Your task to perform on an android device: What's on my calendar tomorrow? Image 0: 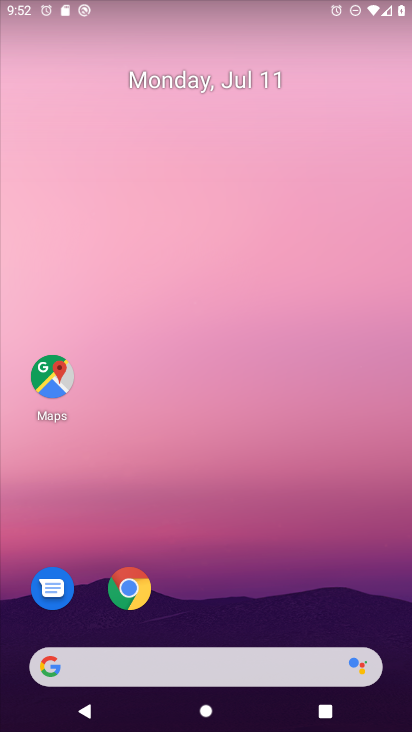
Step 0: drag from (239, 659) to (371, 47)
Your task to perform on an android device: What's on my calendar tomorrow? Image 1: 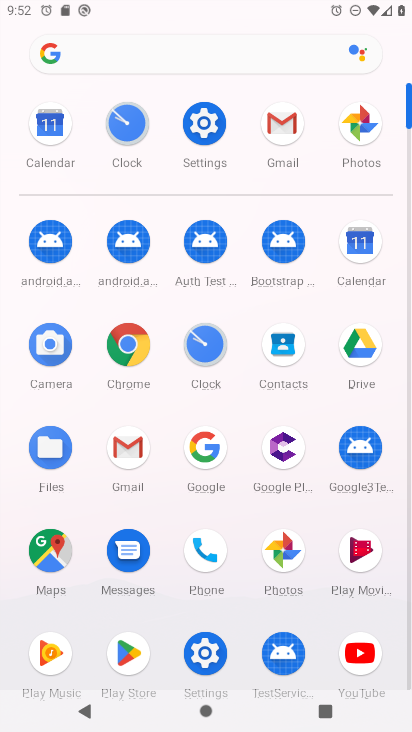
Step 1: click (352, 252)
Your task to perform on an android device: What's on my calendar tomorrow? Image 2: 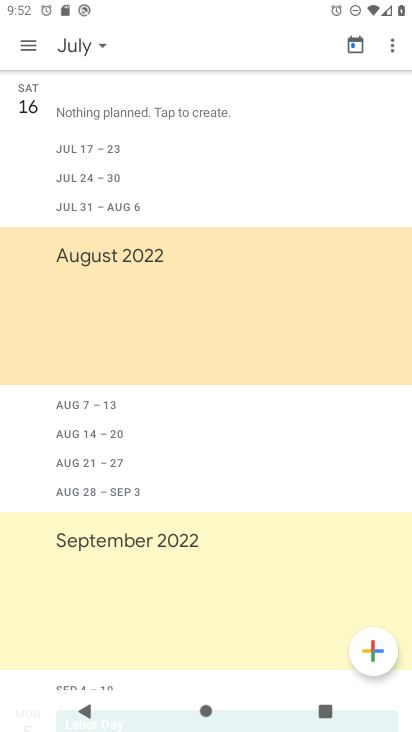
Step 2: click (79, 48)
Your task to perform on an android device: What's on my calendar tomorrow? Image 3: 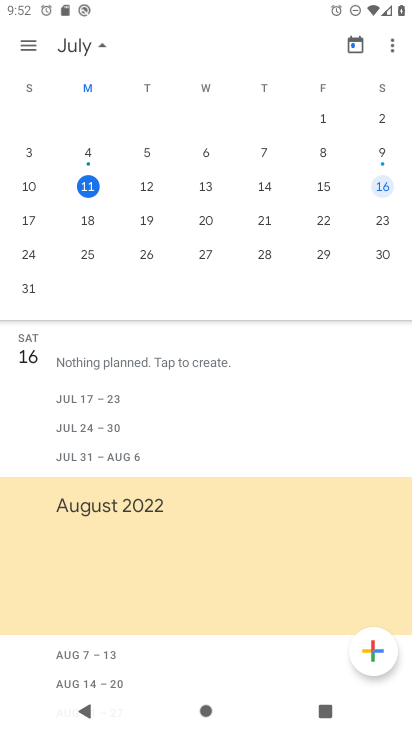
Step 3: click (154, 190)
Your task to perform on an android device: What's on my calendar tomorrow? Image 4: 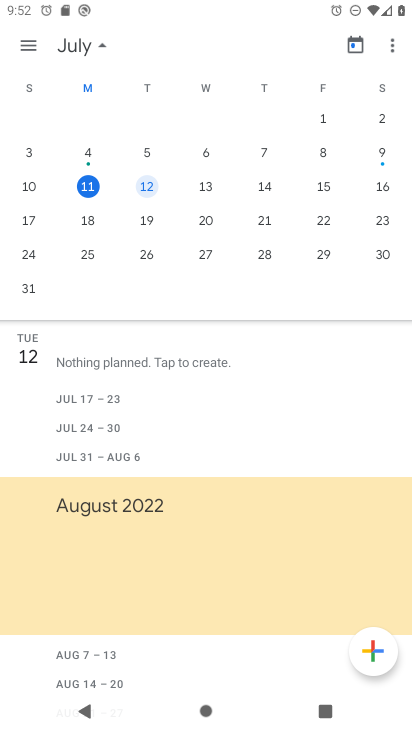
Step 4: click (23, 46)
Your task to perform on an android device: What's on my calendar tomorrow? Image 5: 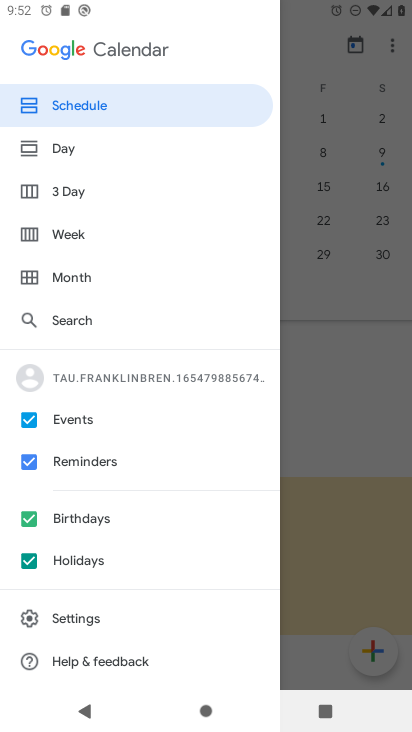
Step 5: click (87, 103)
Your task to perform on an android device: What's on my calendar tomorrow? Image 6: 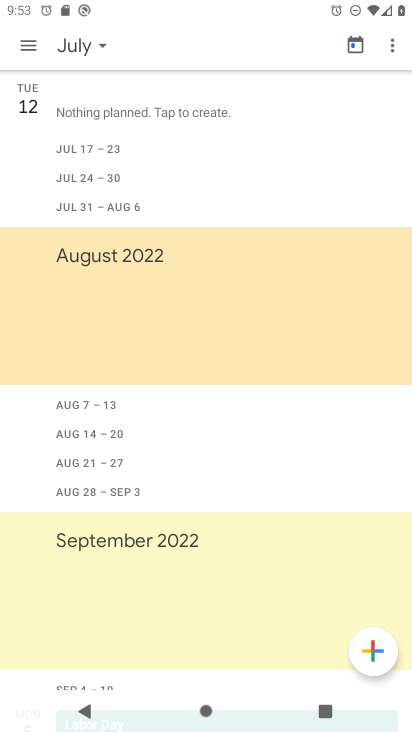
Step 6: task complete